Your task to perform on an android device: open a new tab in the chrome app Image 0: 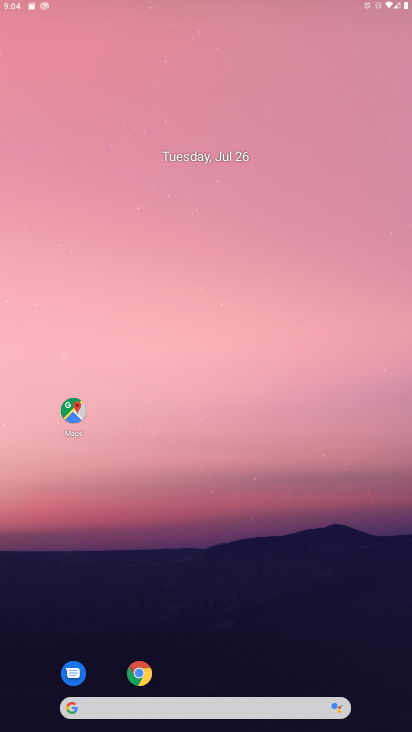
Step 0: drag from (358, 619) to (175, 82)
Your task to perform on an android device: open a new tab in the chrome app Image 1: 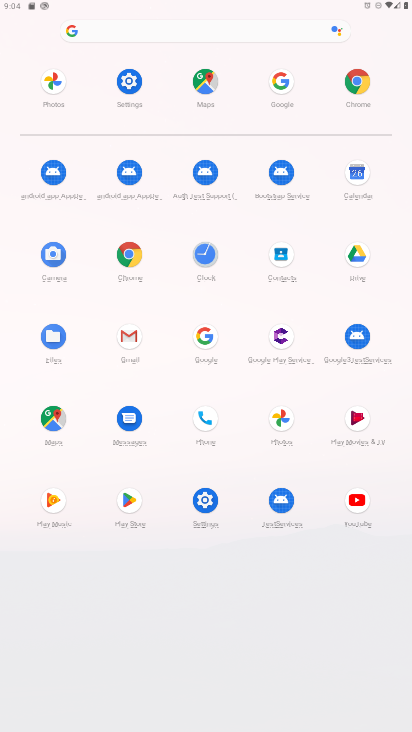
Step 1: click (123, 253)
Your task to perform on an android device: open a new tab in the chrome app Image 2: 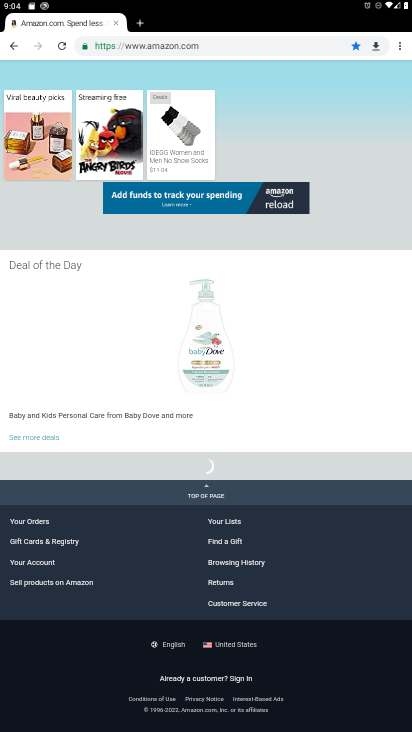
Step 2: click (139, 17)
Your task to perform on an android device: open a new tab in the chrome app Image 3: 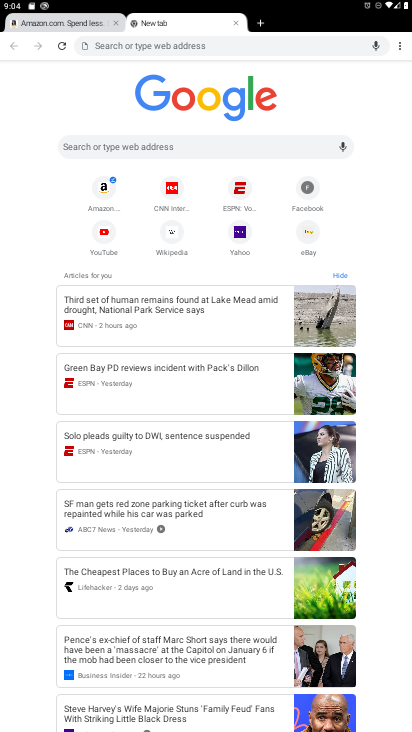
Step 3: task complete